Your task to perform on an android device: turn off location history Image 0: 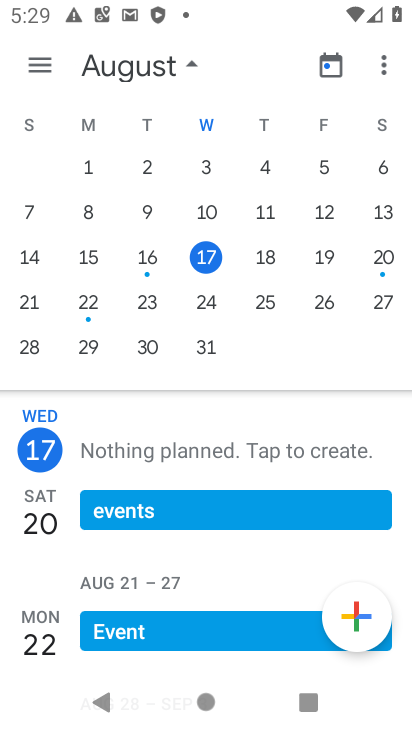
Step 0: press home button
Your task to perform on an android device: turn off location history Image 1: 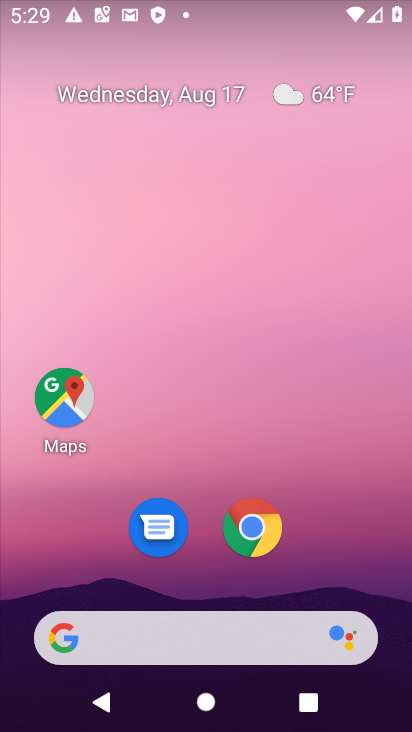
Step 1: drag from (237, 600) to (185, 103)
Your task to perform on an android device: turn off location history Image 2: 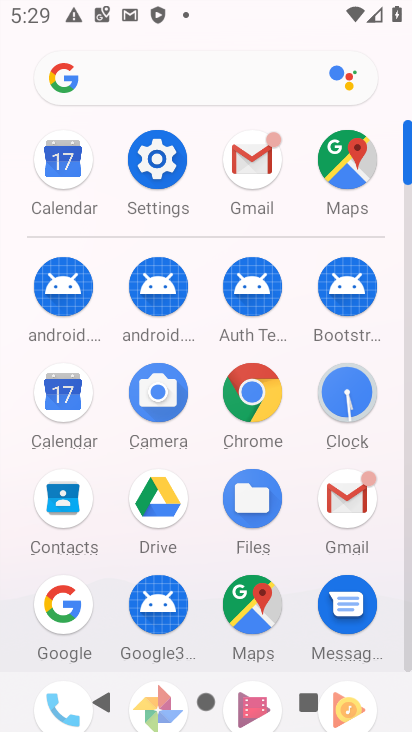
Step 2: click (144, 153)
Your task to perform on an android device: turn off location history Image 3: 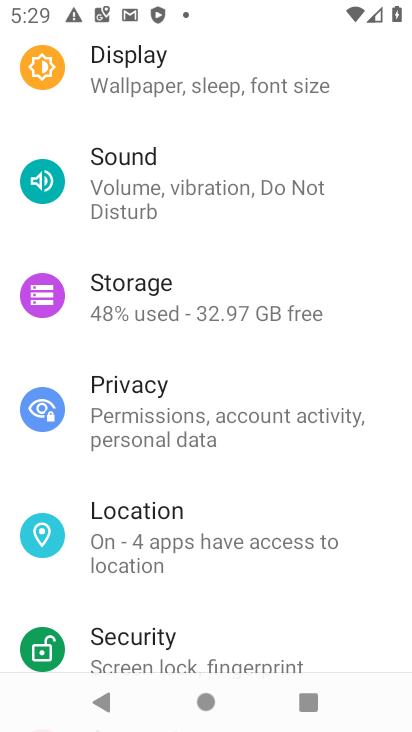
Step 3: click (206, 534)
Your task to perform on an android device: turn off location history Image 4: 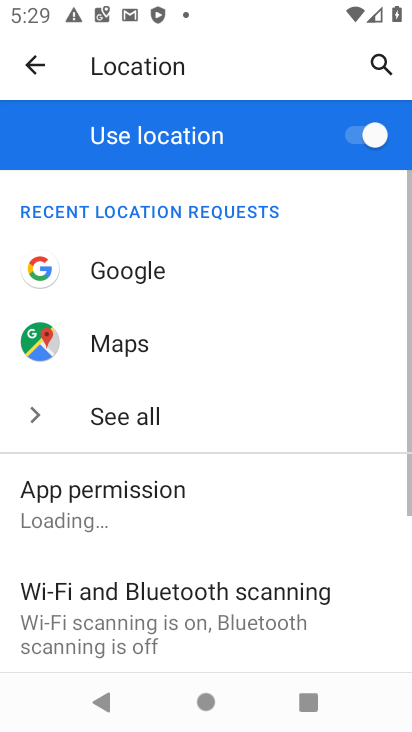
Step 4: drag from (202, 581) to (145, 89)
Your task to perform on an android device: turn off location history Image 5: 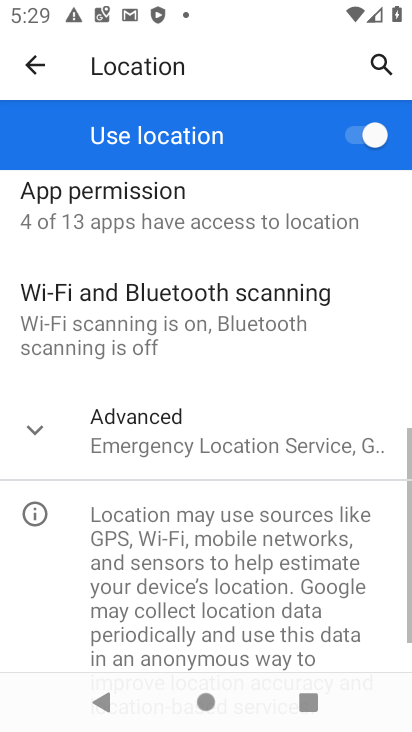
Step 5: click (123, 433)
Your task to perform on an android device: turn off location history Image 6: 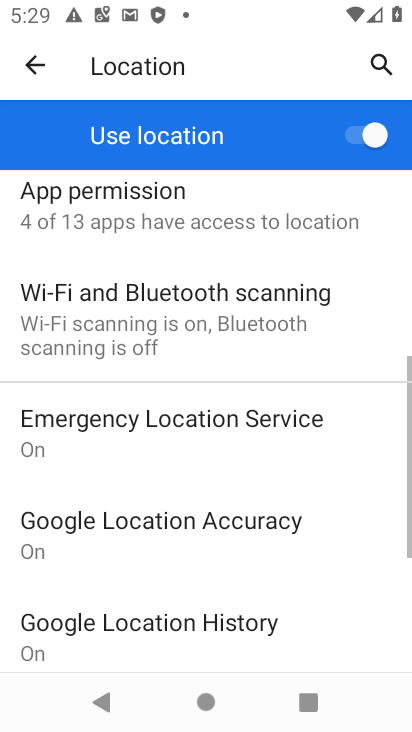
Step 6: drag from (177, 607) to (156, 151)
Your task to perform on an android device: turn off location history Image 7: 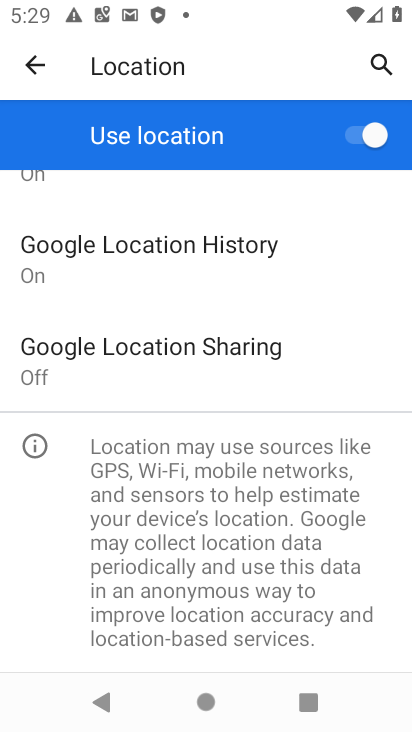
Step 7: click (156, 251)
Your task to perform on an android device: turn off location history Image 8: 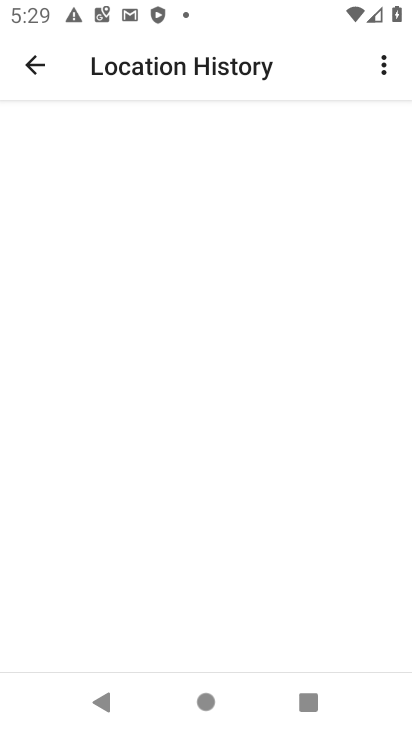
Step 8: drag from (142, 548) to (142, 138)
Your task to perform on an android device: turn off location history Image 9: 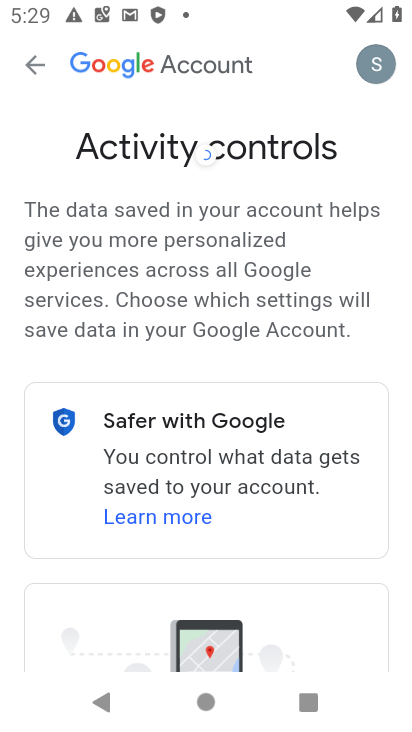
Step 9: drag from (198, 540) to (198, 92)
Your task to perform on an android device: turn off location history Image 10: 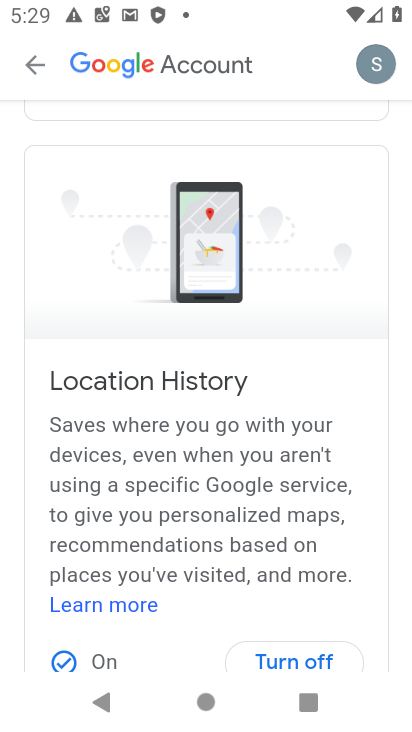
Step 10: click (282, 661)
Your task to perform on an android device: turn off location history Image 11: 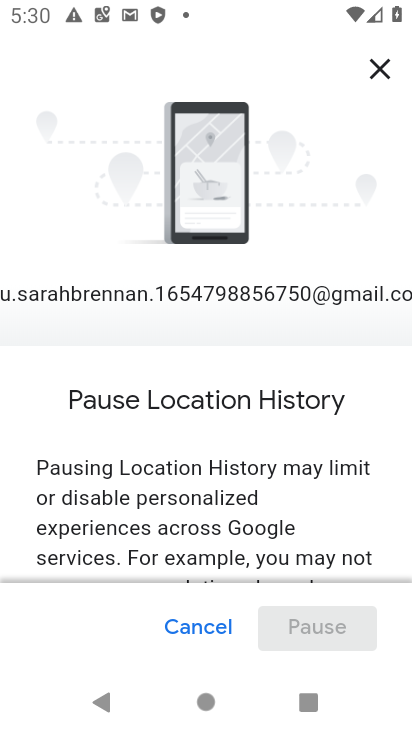
Step 11: drag from (298, 537) to (294, 64)
Your task to perform on an android device: turn off location history Image 12: 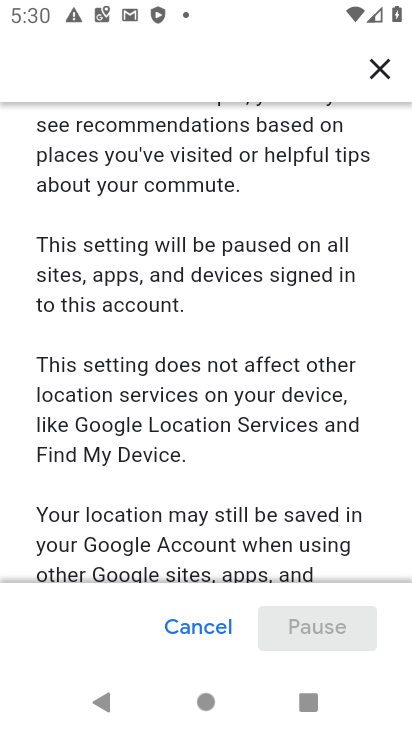
Step 12: drag from (270, 534) to (222, 103)
Your task to perform on an android device: turn off location history Image 13: 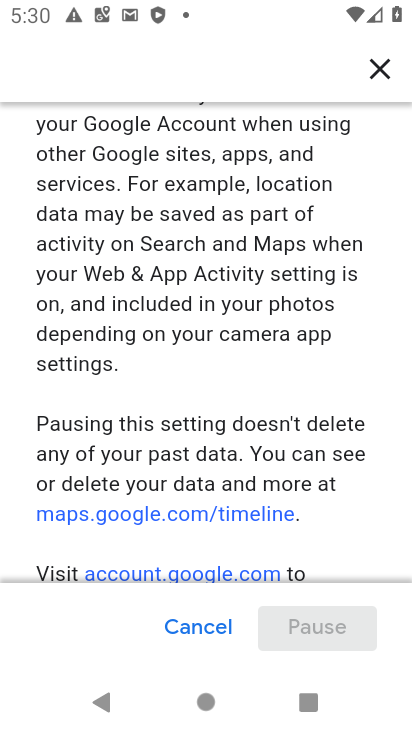
Step 13: drag from (223, 543) to (200, 74)
Your task to perform on an android device: turn off location history Image 14: 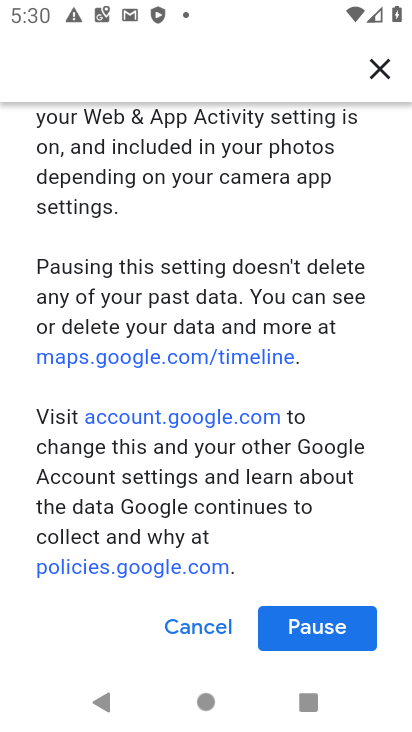
Step 14: click (307, 620)
Your task to perform on an android device: turn off location history Image 15: 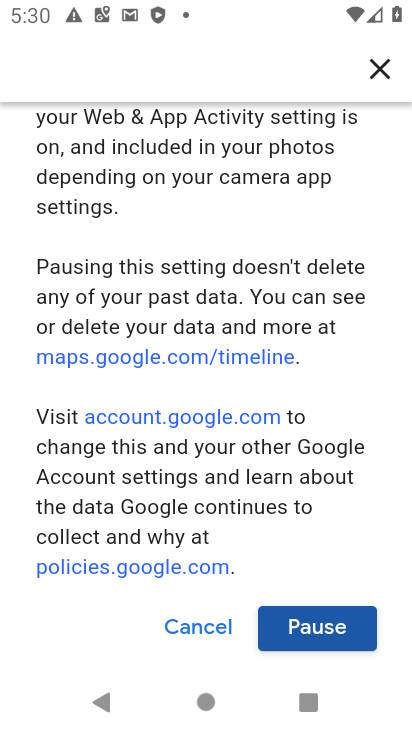
Step 15: click (311, 638)
Your task to perform on an android device: turn off location history Image 16: 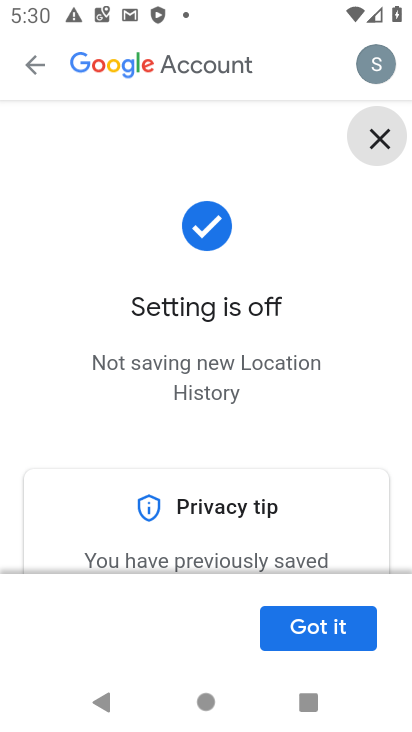
Step 16: click (311, 638)
Your task to perform on an android device: turn off location history Image 17: 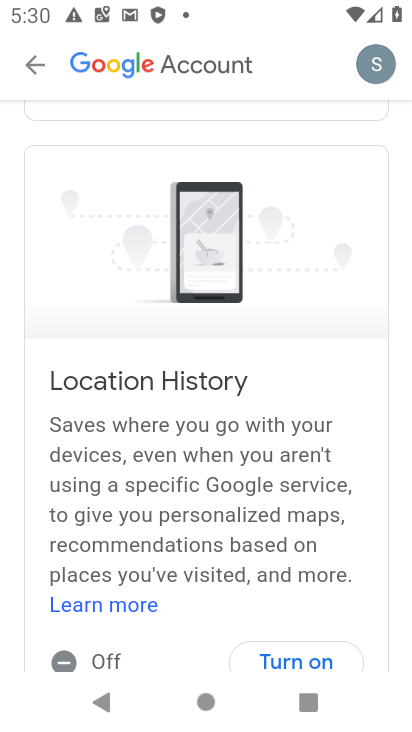
Step 17: task complete